Your task to perform on an android device: uninstall "Google Pay: Save, Pay, Manage" Image 0: 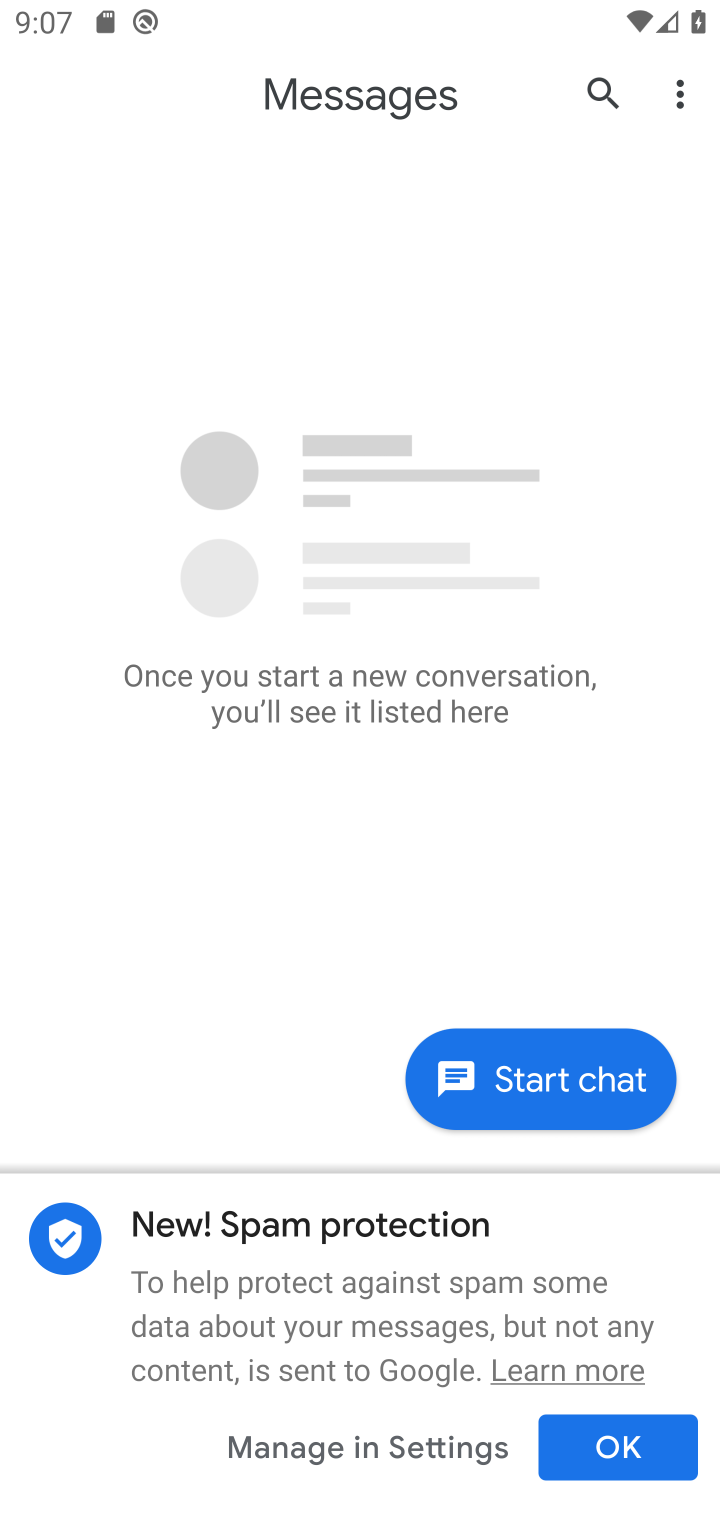
Step 0: press home button
Your task to perform on an android device: uninstall "Google Pay: Save, Pay, Manage" Image 1: 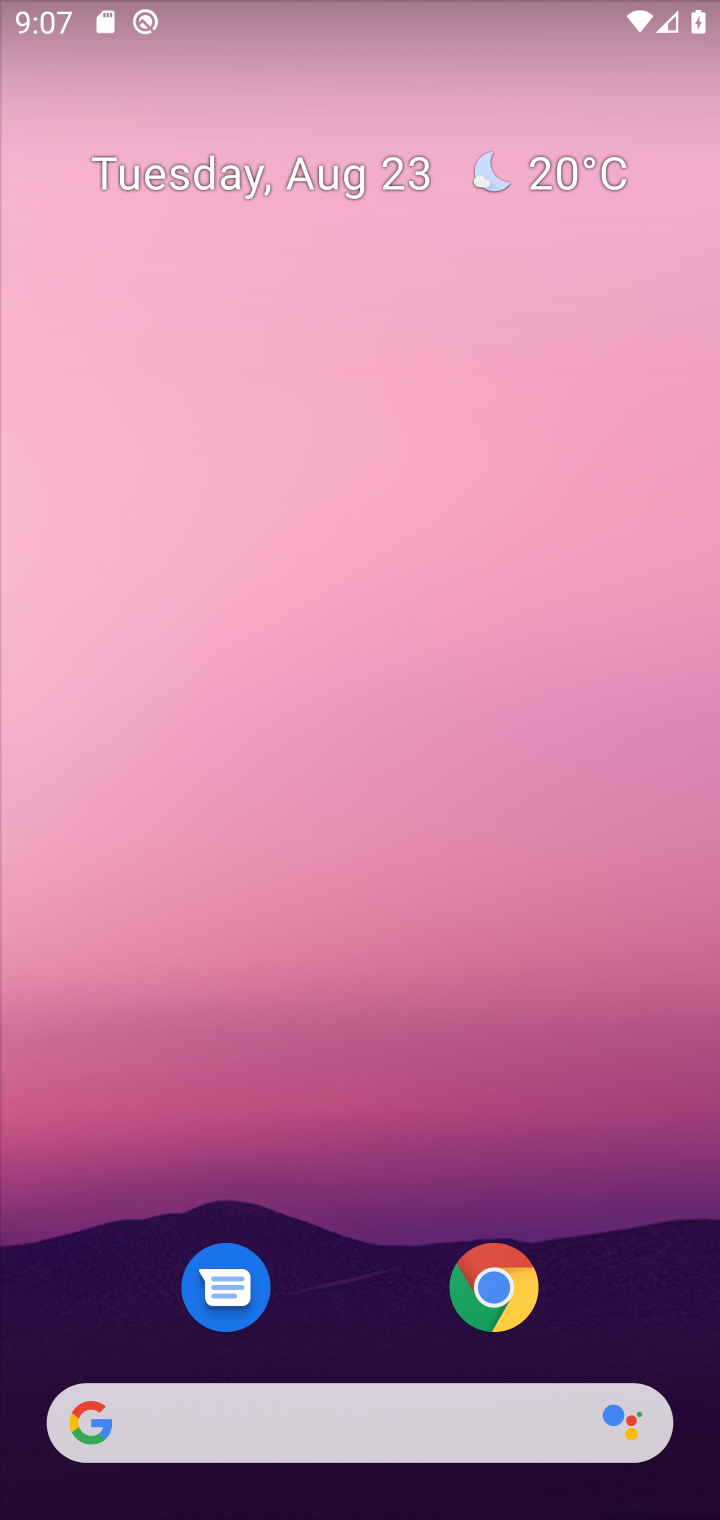
Step 1: drag from (351, 1230) to (330, 222)
Your task to perform on an android device: uninstall "Google Pay: Save, Pay, Manage" Image 2: 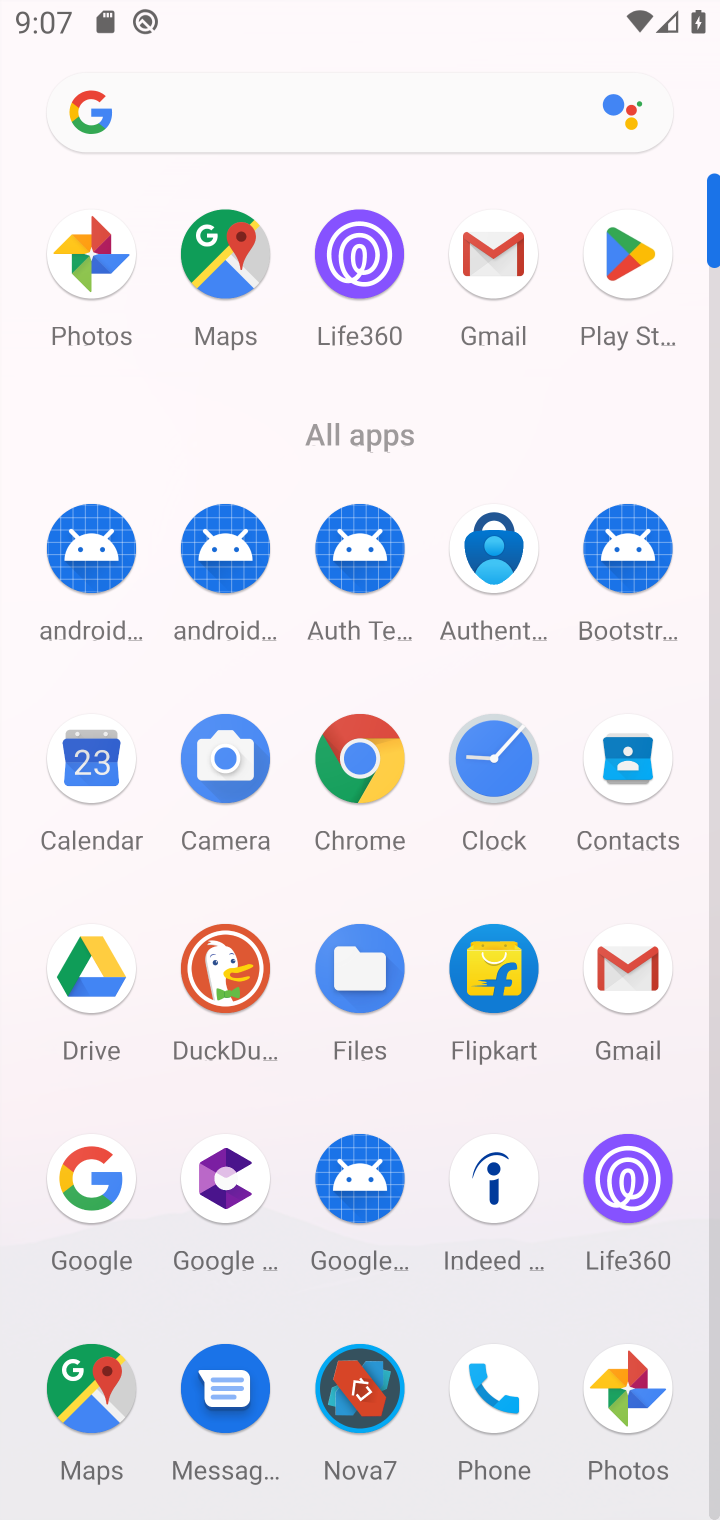
Step 2: click (635, 252)
Your task to perform on an android device: uninstall "Google Pay: Save, Pay, Manage" Image 3: 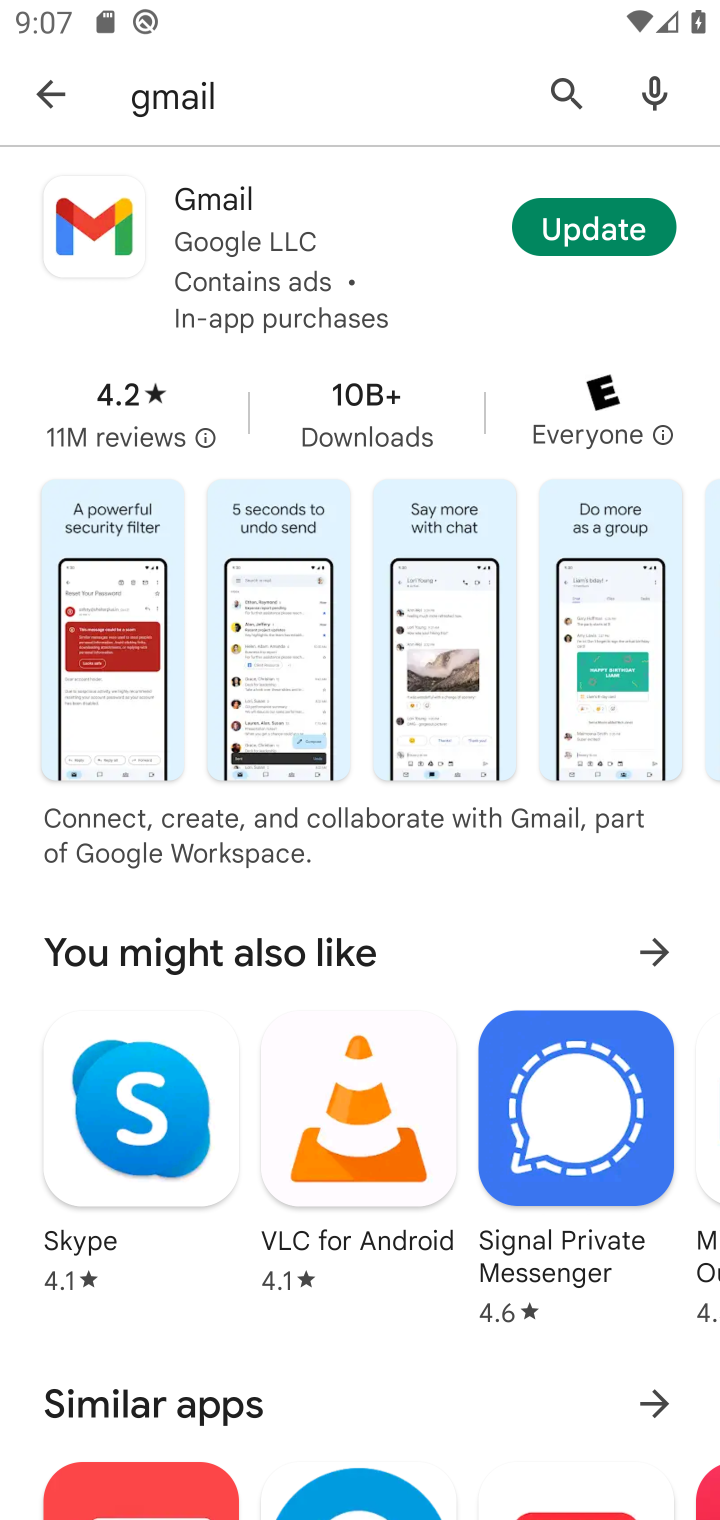
Step 3: click (554, 84)
Your task to perform on an android device: uninstall "Google Pay: Save, Pay, Manage" Image 4: 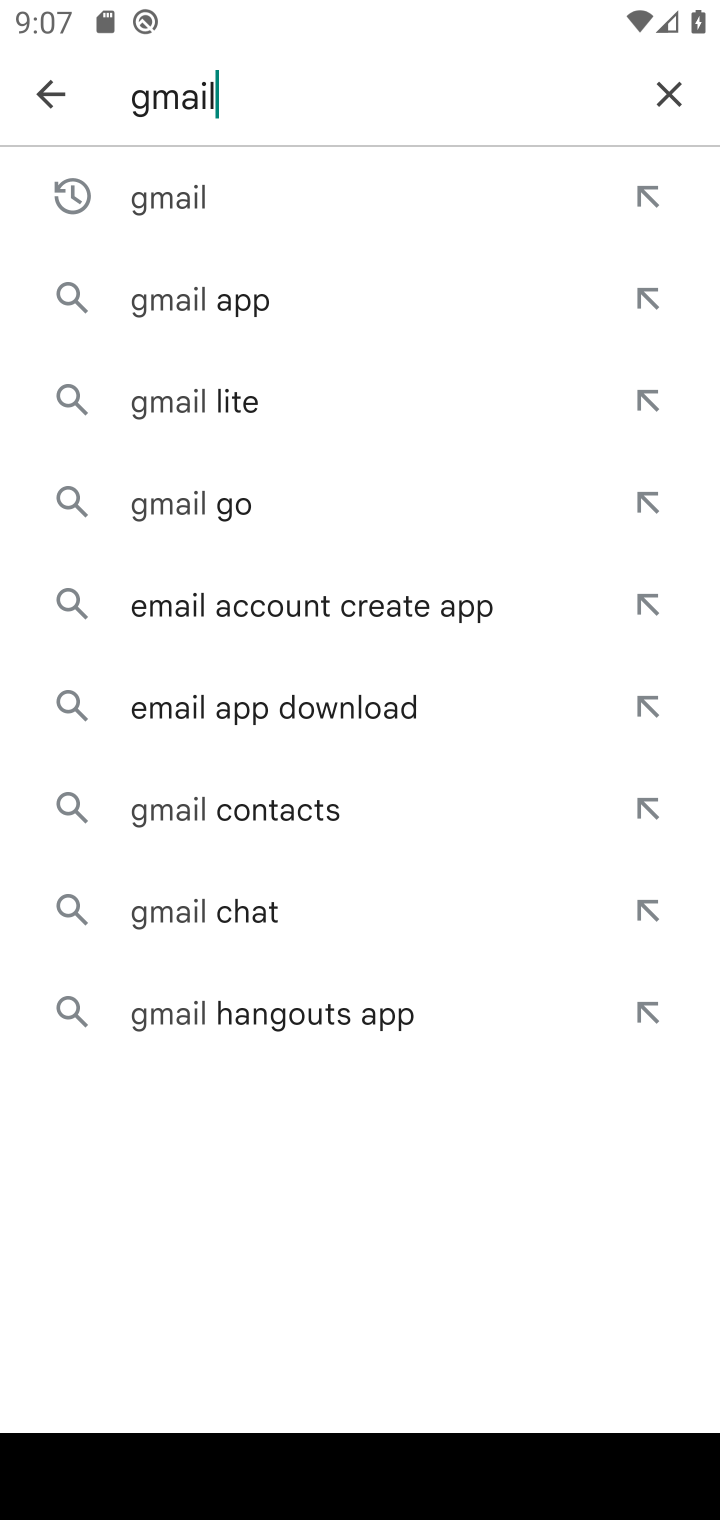
Step 4: click (670, 89)
Your task to perform on an android device: uninstall "Google Pay: Save, Pay, Manage" Image 5: 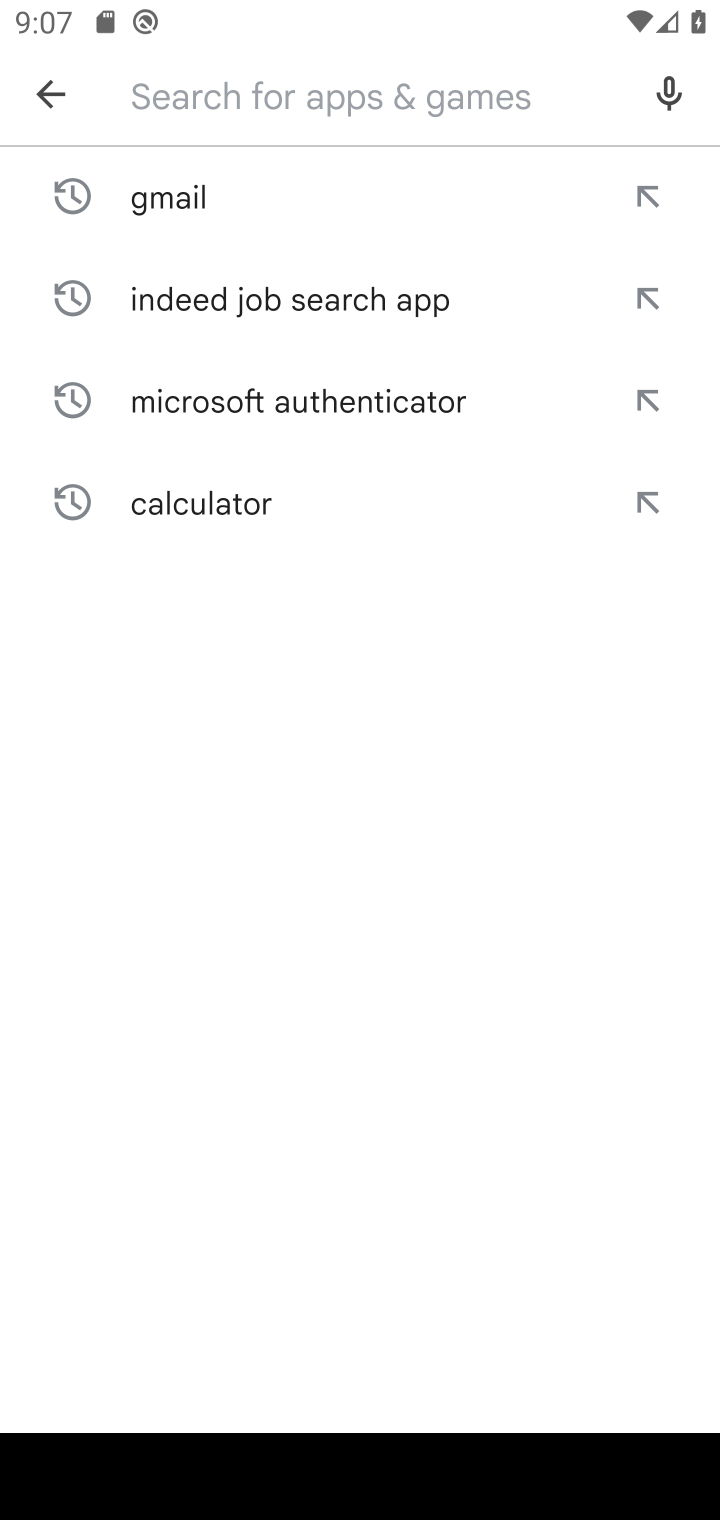
Step 5: type "Google Pay: Save, Pay, Manage"
Your task to perform on an android device: uninstall "Google Pay: Save, Pay, Manage" Image 6: 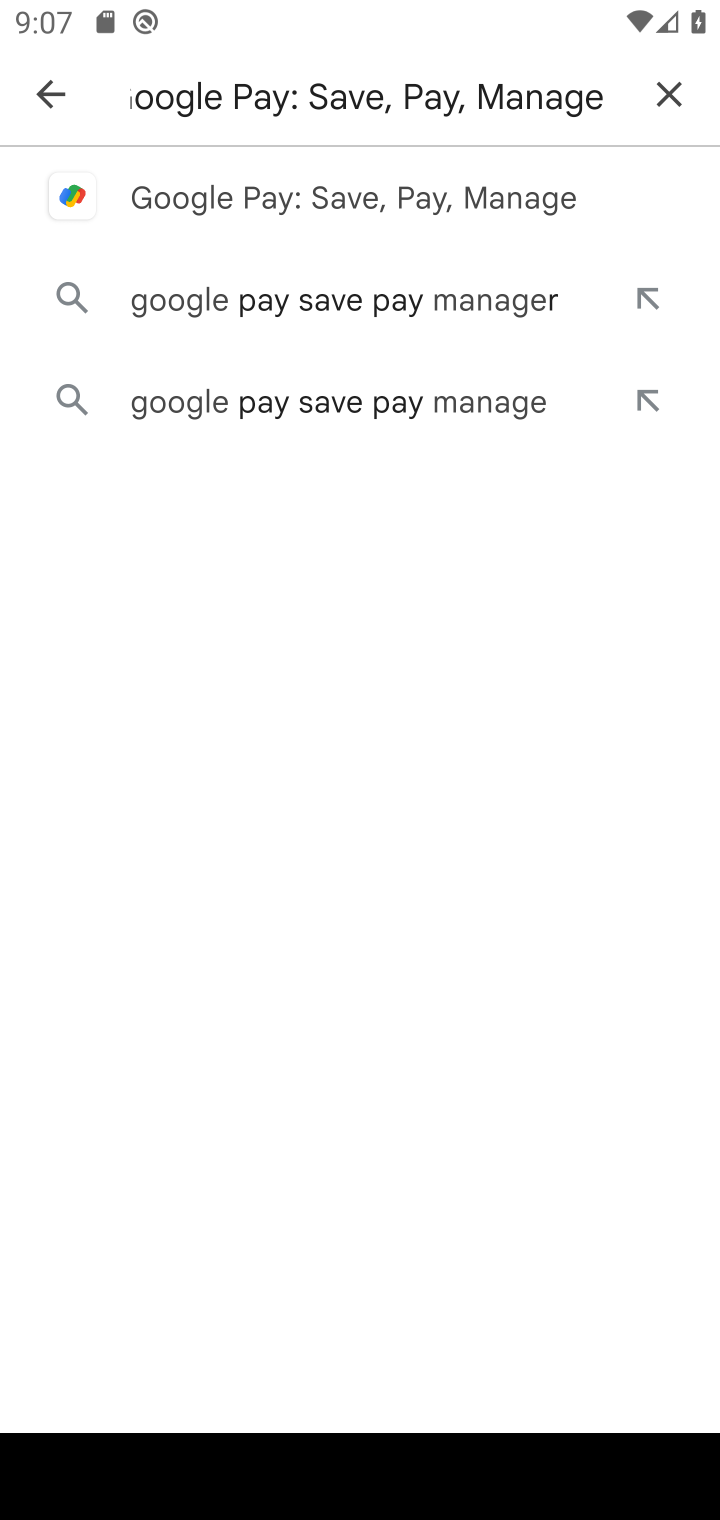
Step 6: click (405, 191)
Your task to perform on an android device: uninstall "Google Pay: Save, Pay, Manage" Image 7: 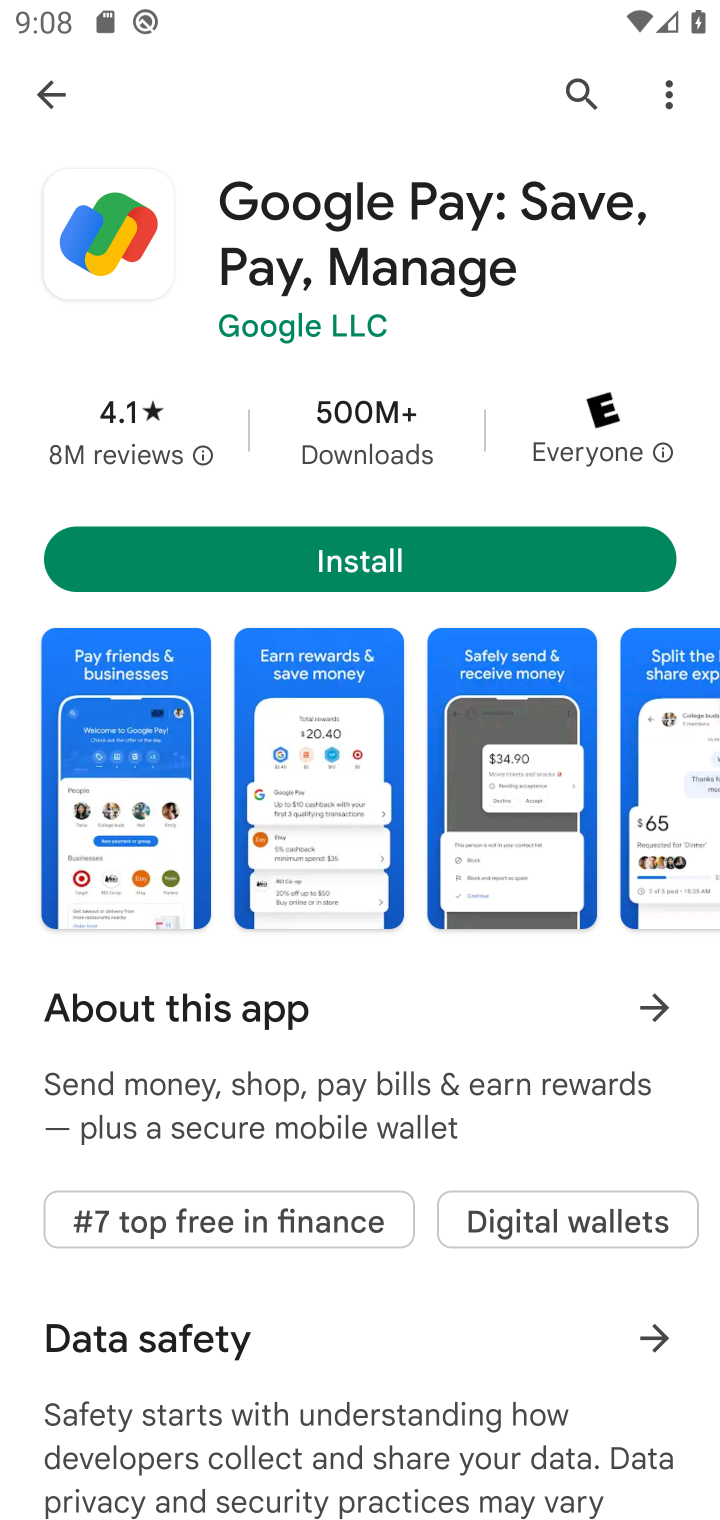
Step 7: task complete